Your task to perform on an android device: open app "Mercado Libre" (install if not already installed) Image 0: 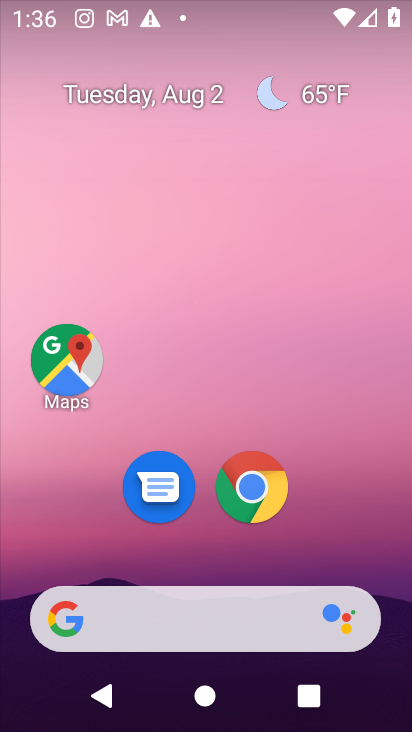
Step 0: drag from (236, 620) to (277, 42)
Your task to perform on an android device: open app "Mercado Libre" (install if not already installed) Image 1: 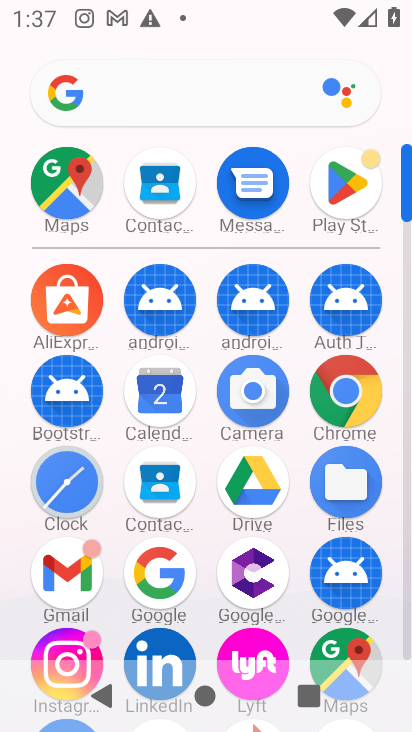
Step 1: click (345, 174)
Your task to perform on an android device: open app "Mercado Libre" (install if not already installed) Image 2: 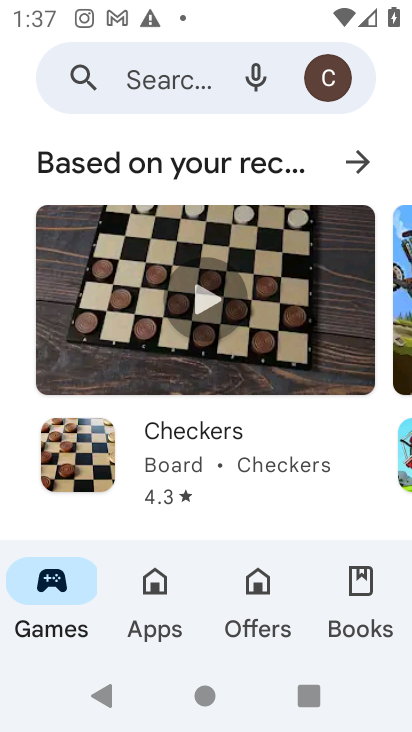
Step 2: click (110, 76)
Your task to perform on an android device: open app "Mercado Libre" (install if not already installed) Image 3: 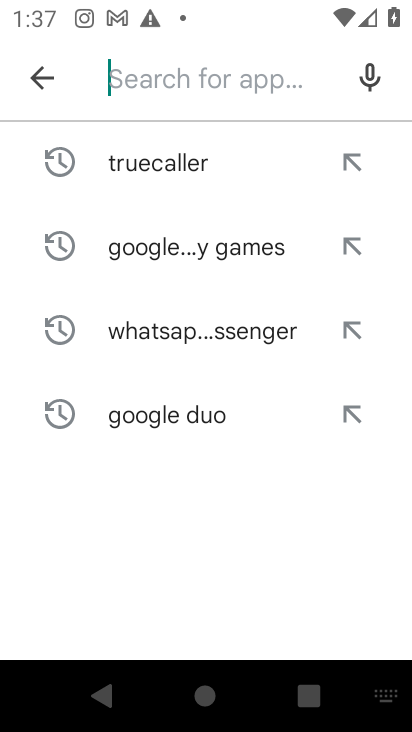
Step 3: type "Mercado Libre"
Your task to perform on an android device: open app "Mercado Libre" (install if not already installed) Image 4: 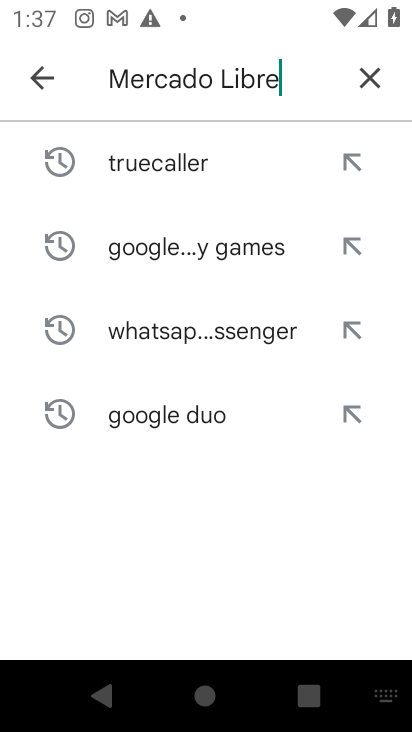
Step 4: type ""
Your task to perform on an android device: open app "Mercado Libre" (install if not already installed) Image 5: 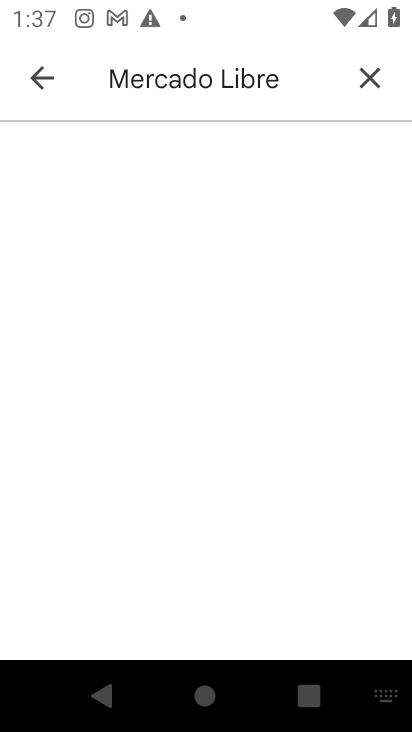
Step 5: click (279, 77)
Your task to perform on an android device: open app "Mercado Libre" (install if not already installed) Image 6: 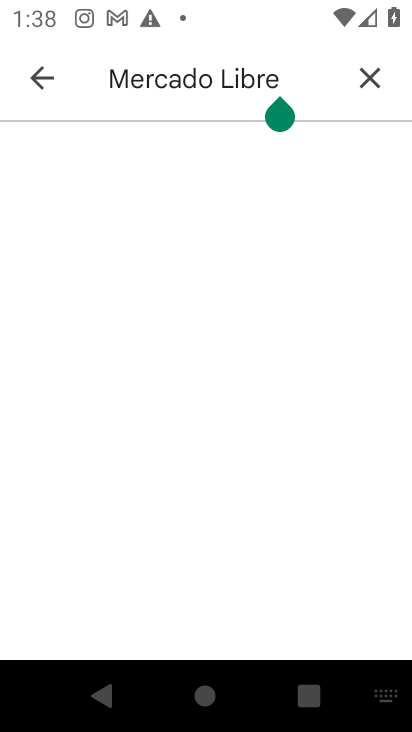
Step 6: click (28, 84)
Your task to perform on an android device: open app "Mercado Libre" (install if not already installed) Image 7: 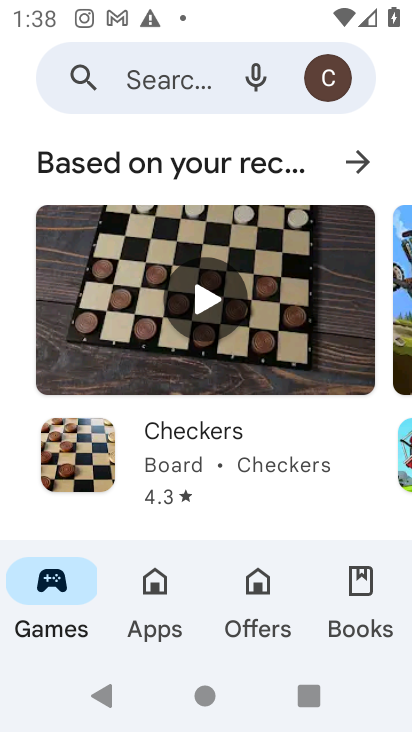
Step 7: click (199, 103)
Your task to perform on an android device: open app "Mercado Libre" (install if not already installed) Image 8: 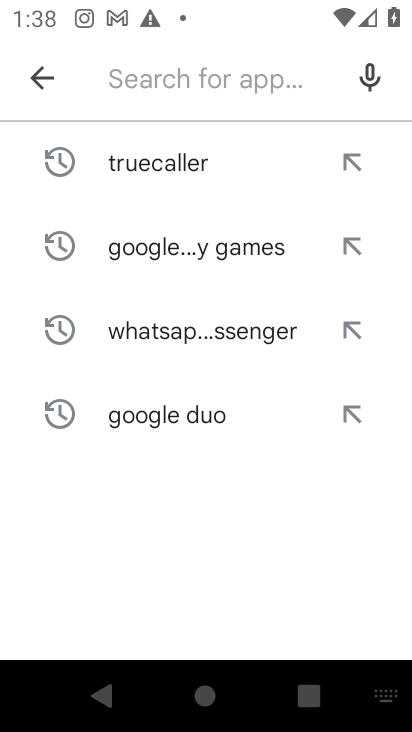
Step 8: type "Mercado Libre"
Your task to perform on an android device: open app "Mercado Libre" (install if not already installed) Image 9: 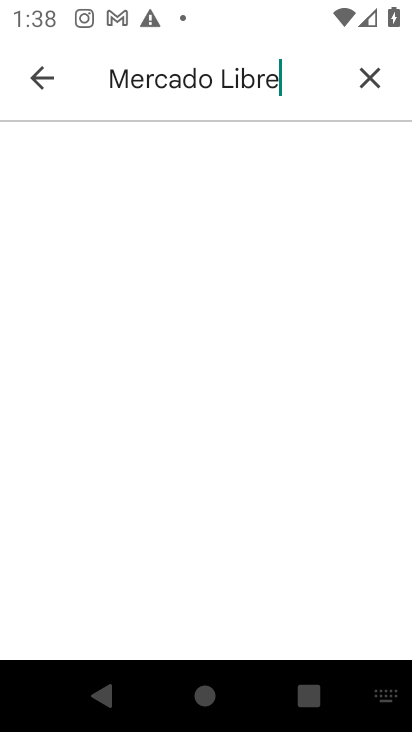
Step 9: type ""
Your task to perform on an android device: open app "Mercado Libre" (install if not already installed) Image 10: 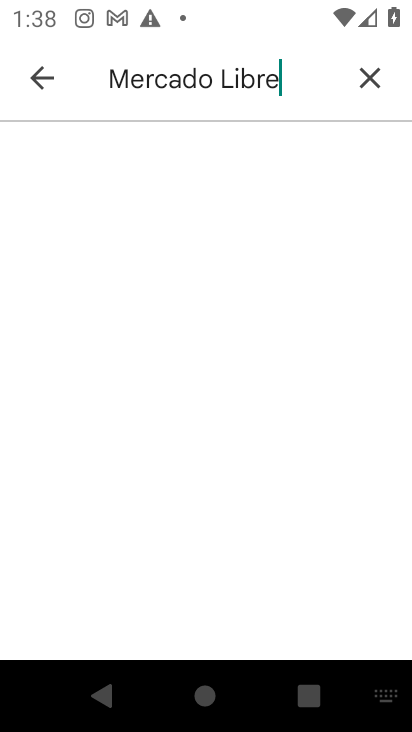
Step 10: task complete